Your task to perform on an android device: Do I have any events this weekend? Image 0: 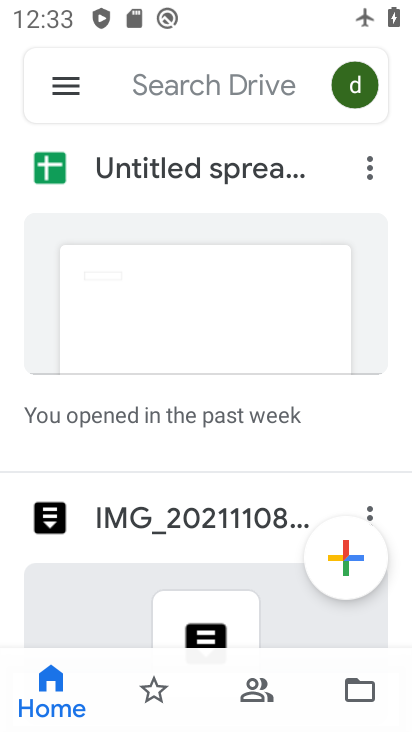
Step 0: press home button
Your task to perform on an android device: Do I have any events this weekend? Image 1: 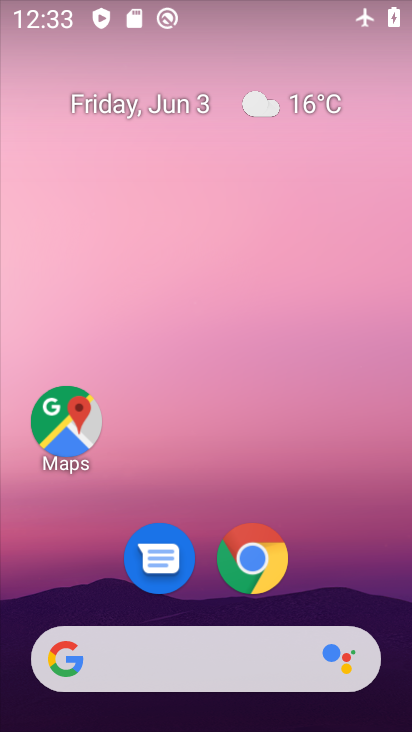
Step 1: drag from (359, 556) to (370, 219)
Your task to perform on an android device: Do I have any events this weekend? Image 2: 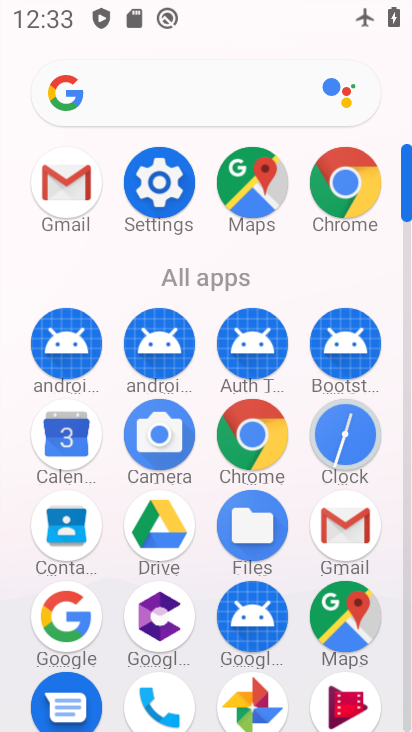
Step 2: click (79, 449)
Your task to perform on an android device: Do I have any events this weekend? Image 3: 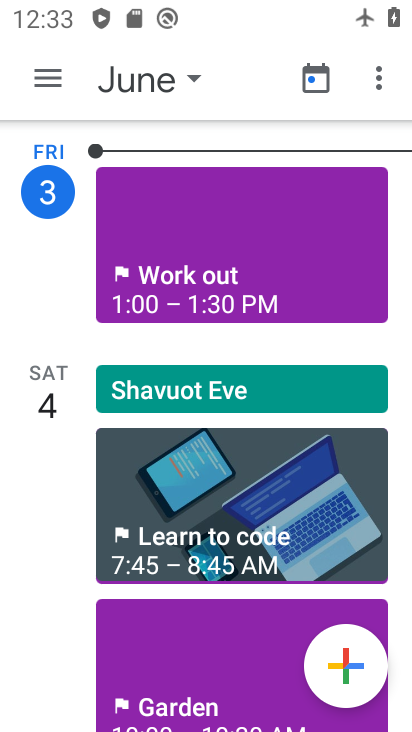
Step 3: drag from (216, 435) to (251, 290)
Your task to perform on an android device: Do I have any events this weekend? Image 4: 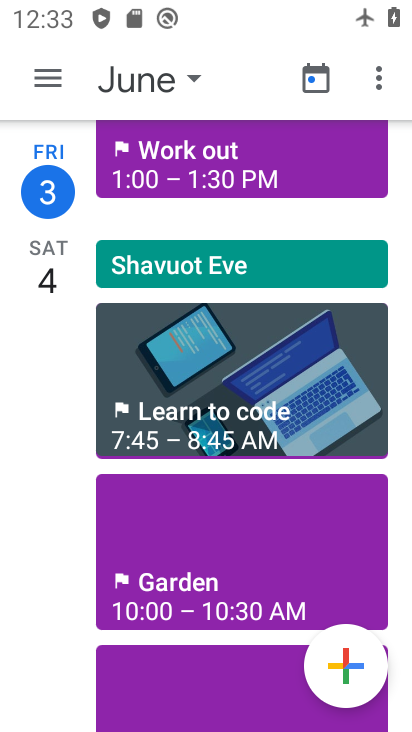
Step 4: click (191, 521)
Your task to perform on an android device: Do I have any events this weekend? Image 5: 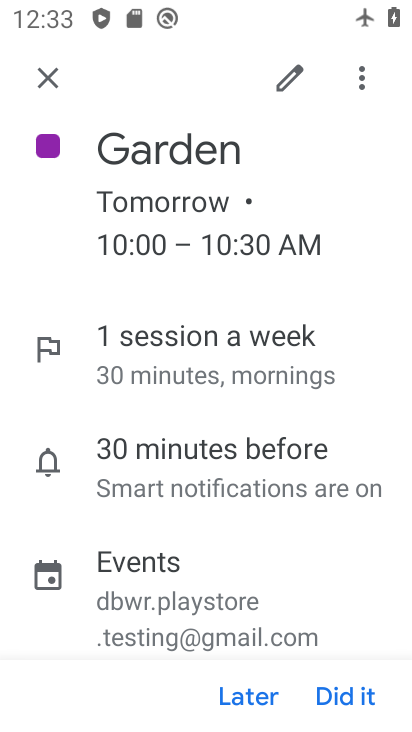
Step 5: task complete